Your task to perform on an android device: toggle data saver in the chrome app Image 0: 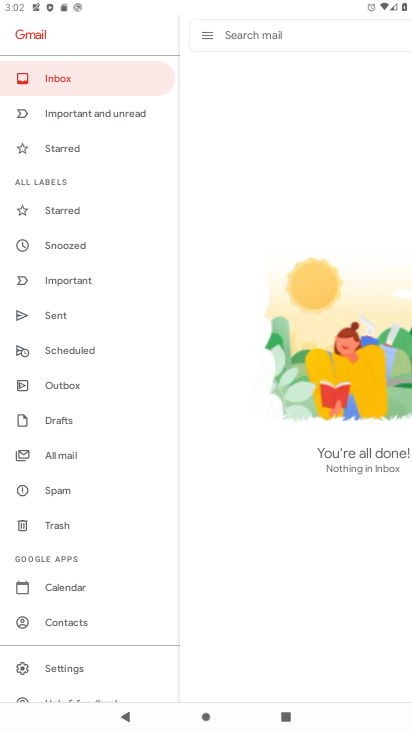
Step 0: press home button
Your task to perform on an android device: toggle data saver in the chrome app Image 1: 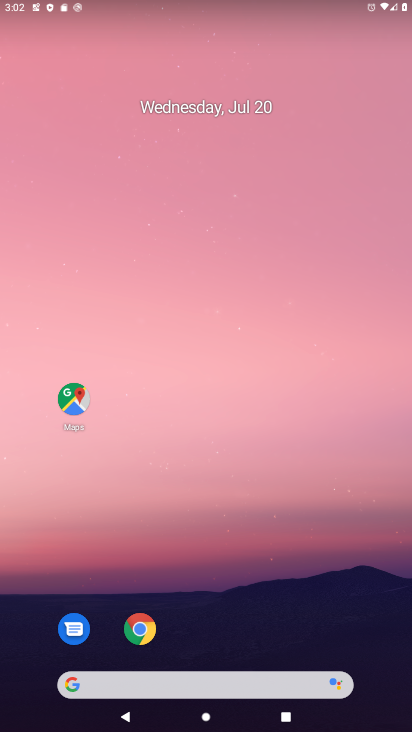
Step 1: drag from (212, 641) to (213, 9)
Your task to perform on an android device: toggle data saver in the chrome app Image 2: 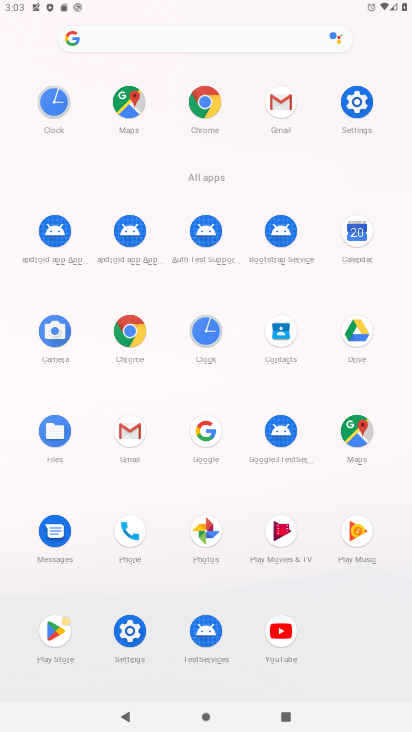
Step 2: click (130, 328)
Your task to perform on an android device: toggle data saver in the chrome app Image 3: 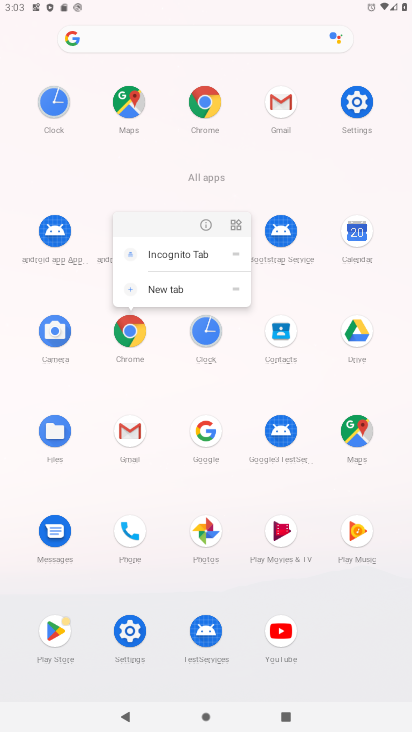
Step 3: click (134, 329)
Your task to perform on an android device: toggle data saver in the chrome app Image 4: 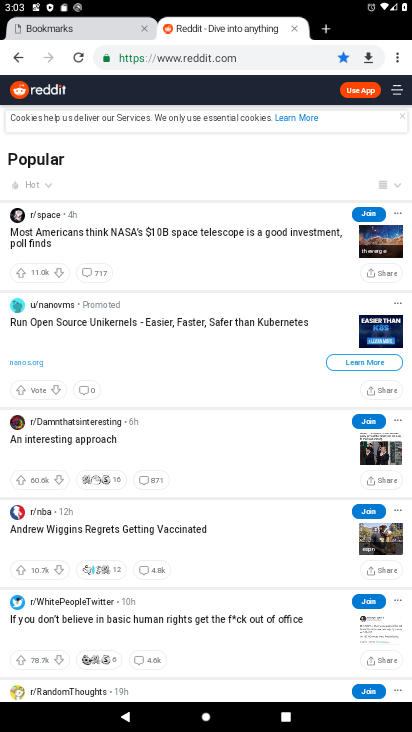
Step 4: click (396, 56)
Your task to perform on an android device: toggle data saver in the chrome app Image 5: 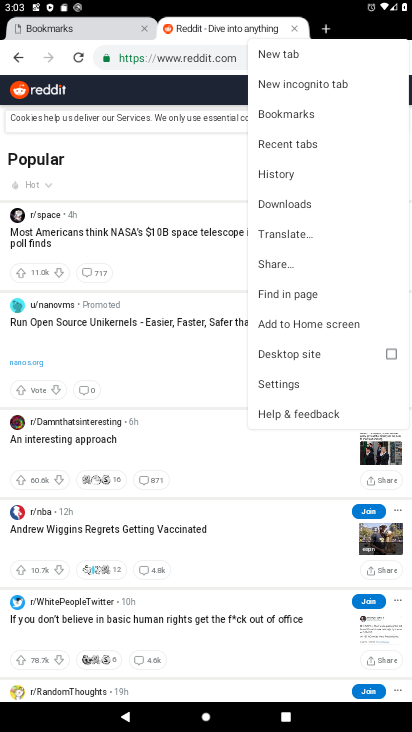
Step 5: click (305, 382)
Your task to perform on an android device: toggle data saver in the chrome app Image 6: 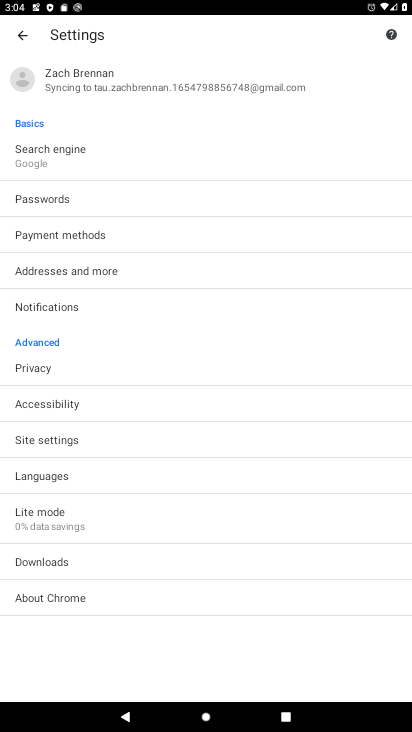
Step 6: click (80, 515)
Your task to perform on an android device: toggle data saver in the chrome app Image 7: 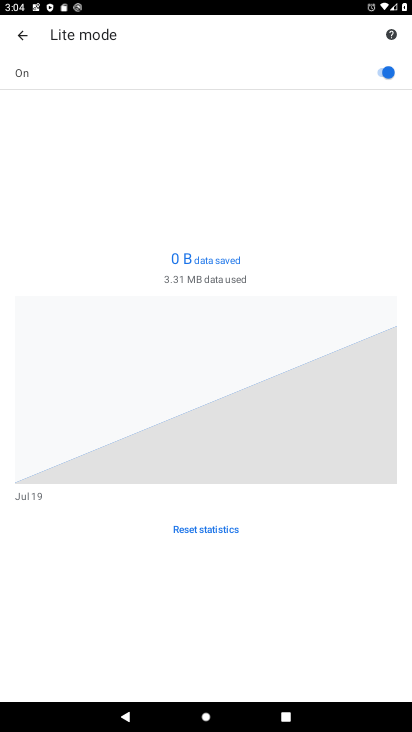
Step 7: click (379, 70)
Your task to perform on an android device: toggle data saver in the chrome app Image 8: 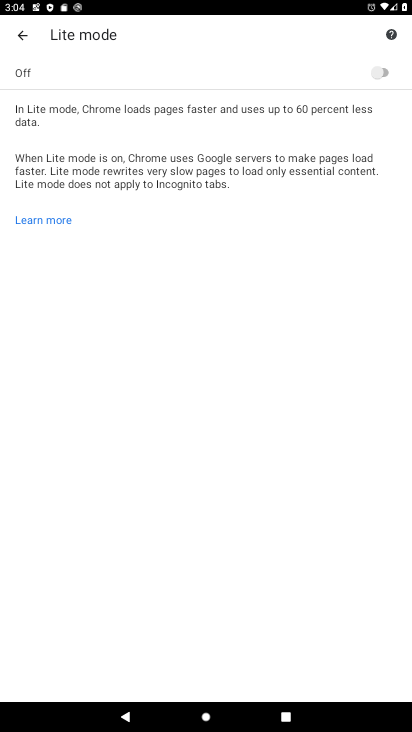
Step 8: task complete